Your task to perform on an android device: install app "Google Translate" Image 0: 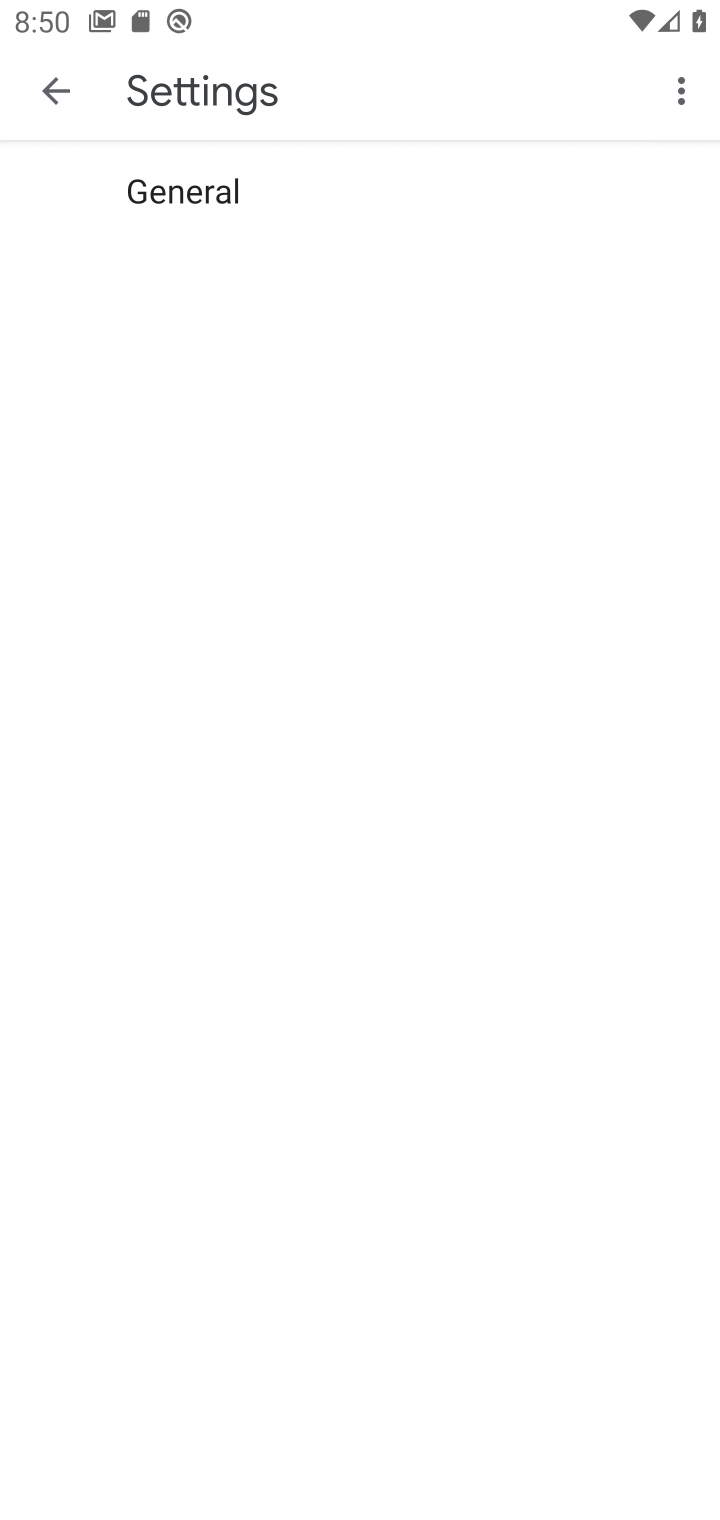
Step 0: press home button
Your task to perform on an android device: install app "Google Translate" Image 1: 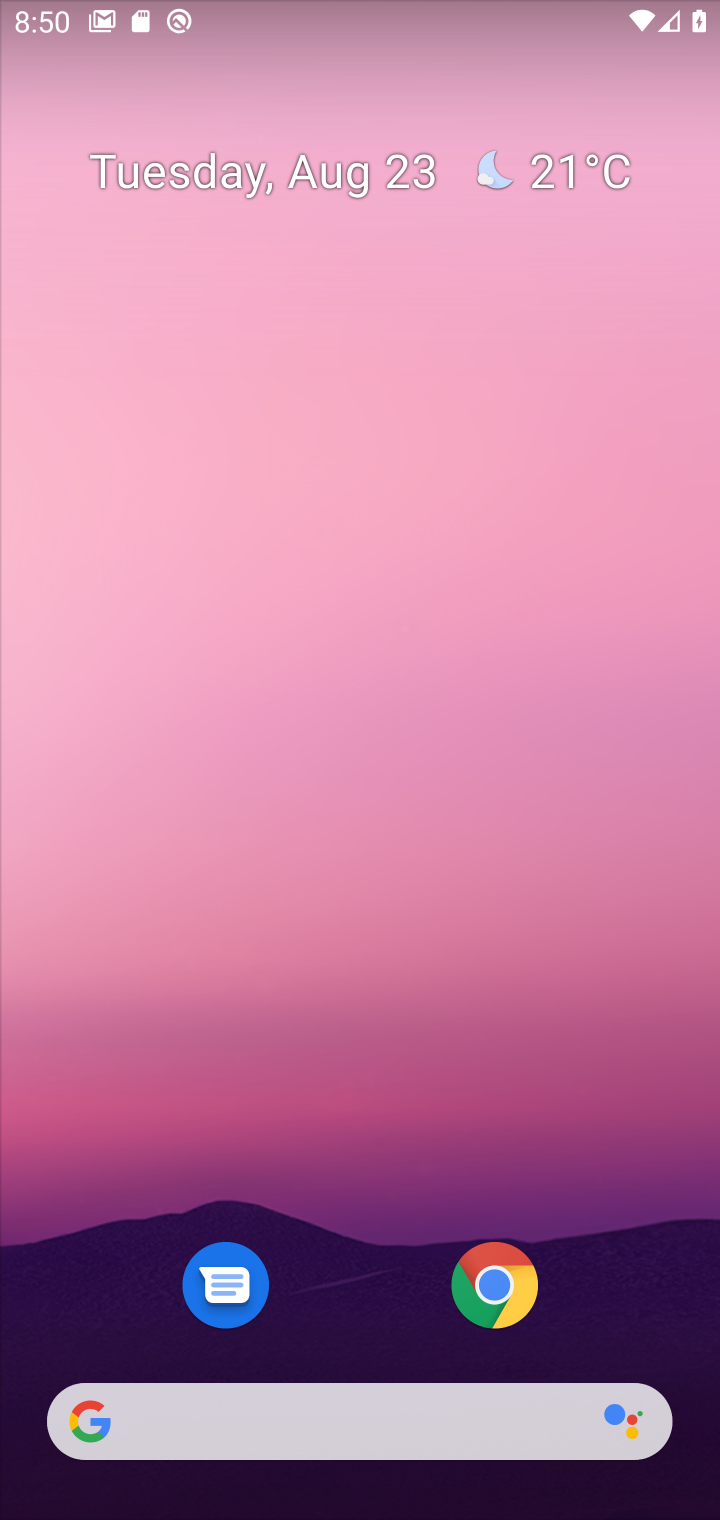
Step 1: drag from (674, 1322) to (632, 90)
Your task to perform on an android device: install app "Google Translate" Image 2: 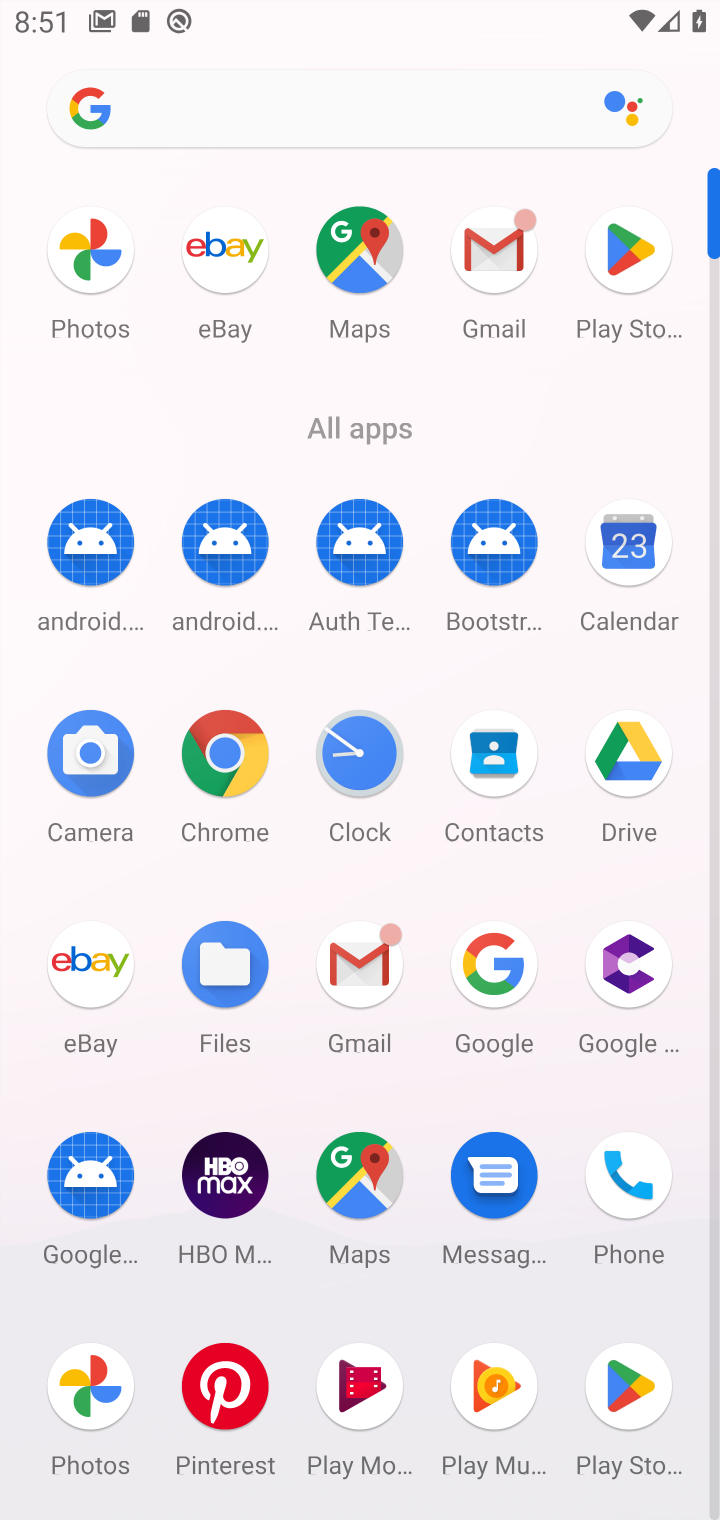
Step 2: click (633, 1386)
Your task to perform on an android device: install app "Google Translate" Image 3: 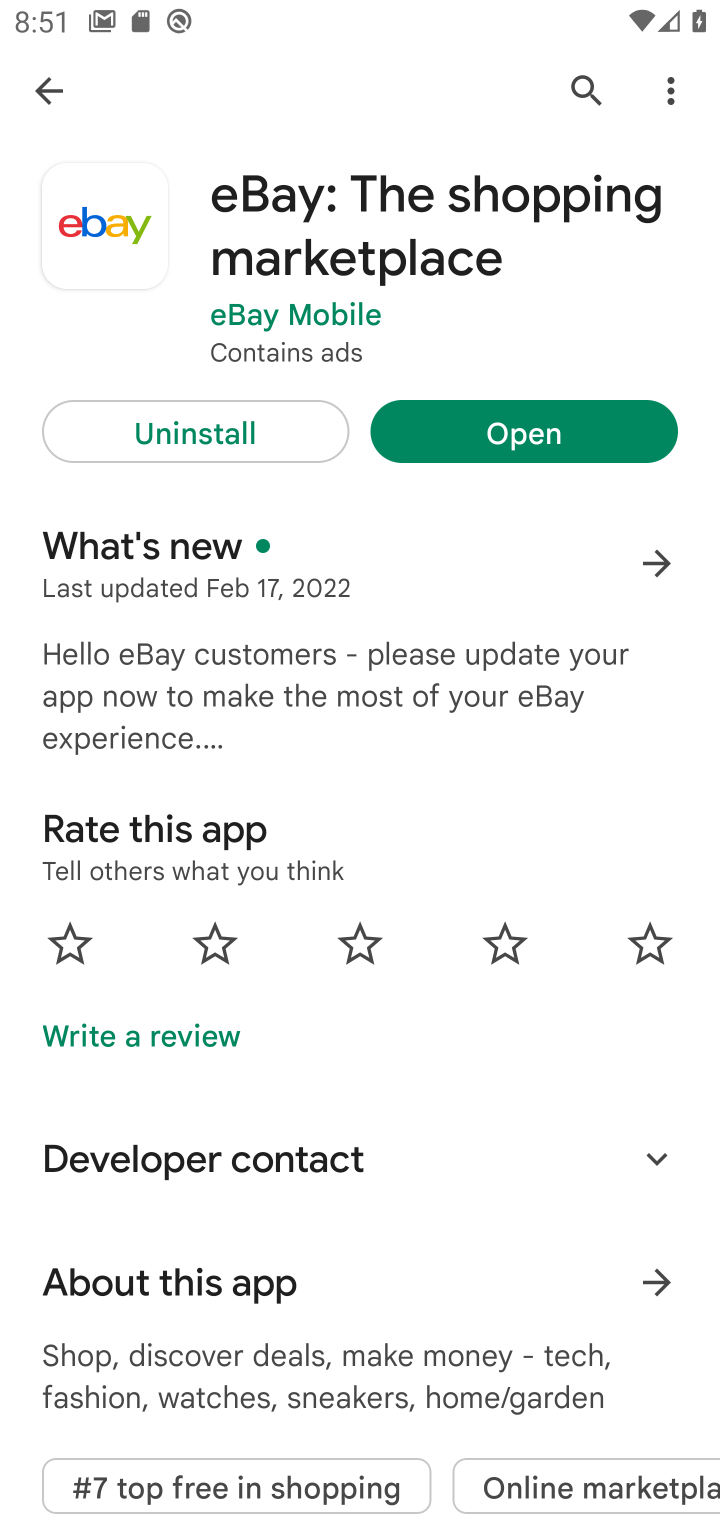
Step 3: click (581, 97)
Your task to perform on an android device: install app "Google Translate" Image 4: 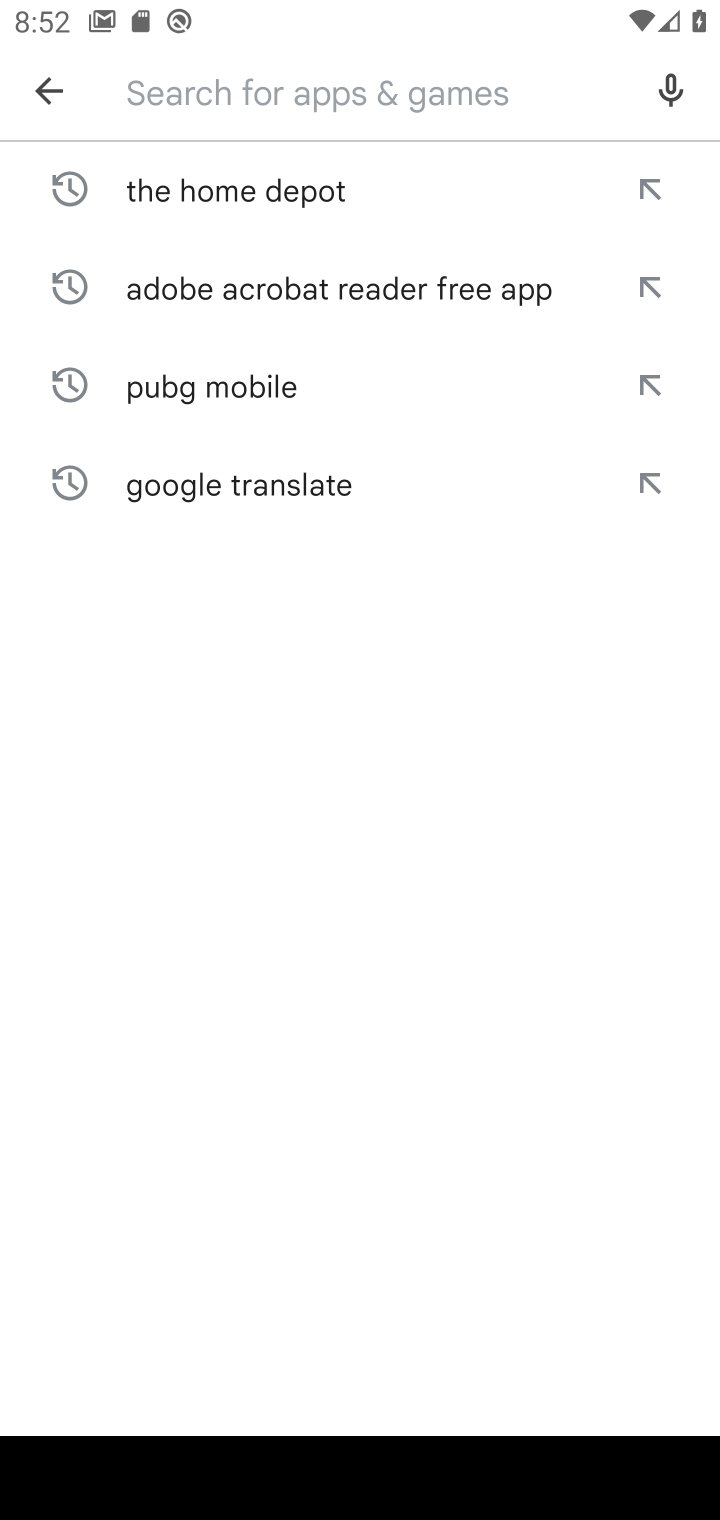
Step 4: type "Google Translate"
Your task to perform on an android device: install app "Google Translate" Image 5: 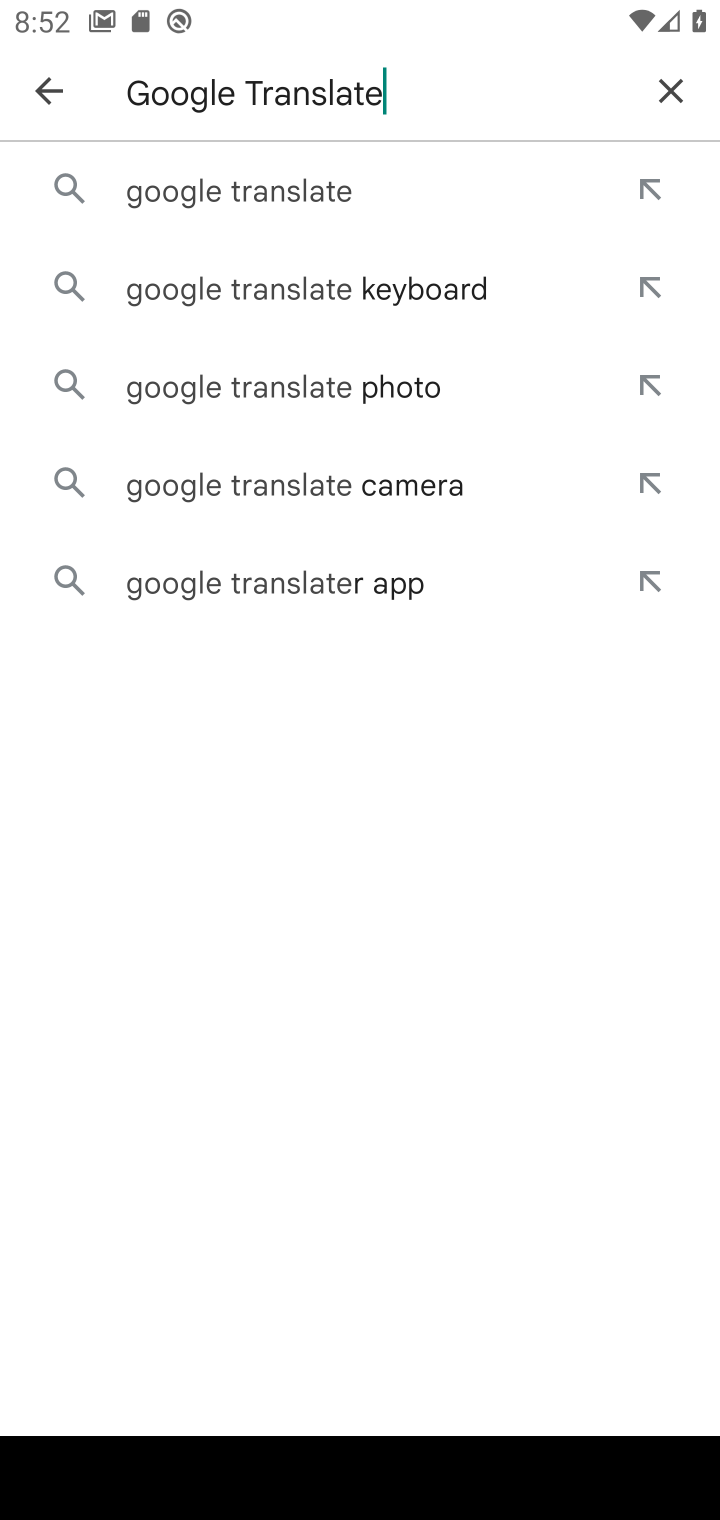
Step 5: click (192, 186)
Your task to perform on an android device: install app "Google Translate" Image 6: 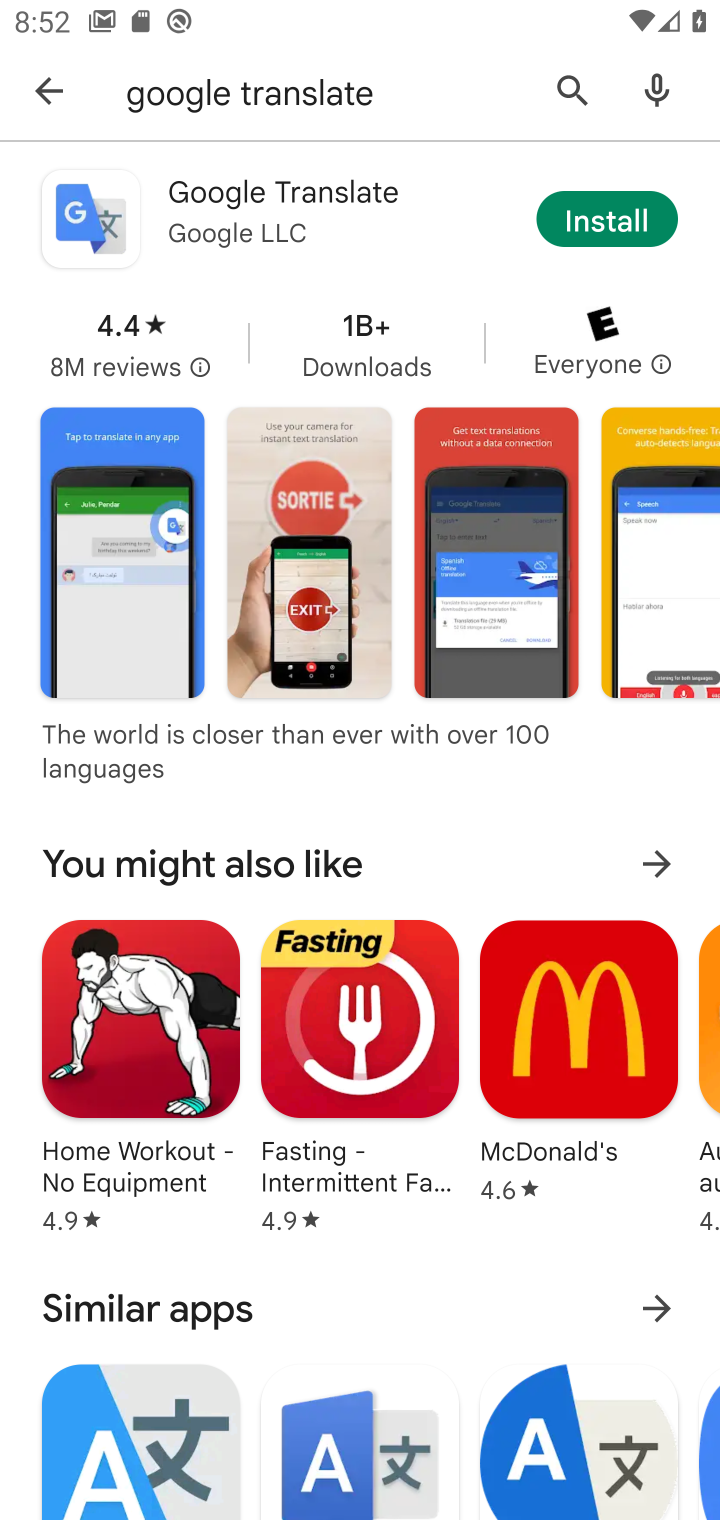
Step 6: click (616, 222)
Your task to perform on an android device: install app "Google Translate" Image 7: 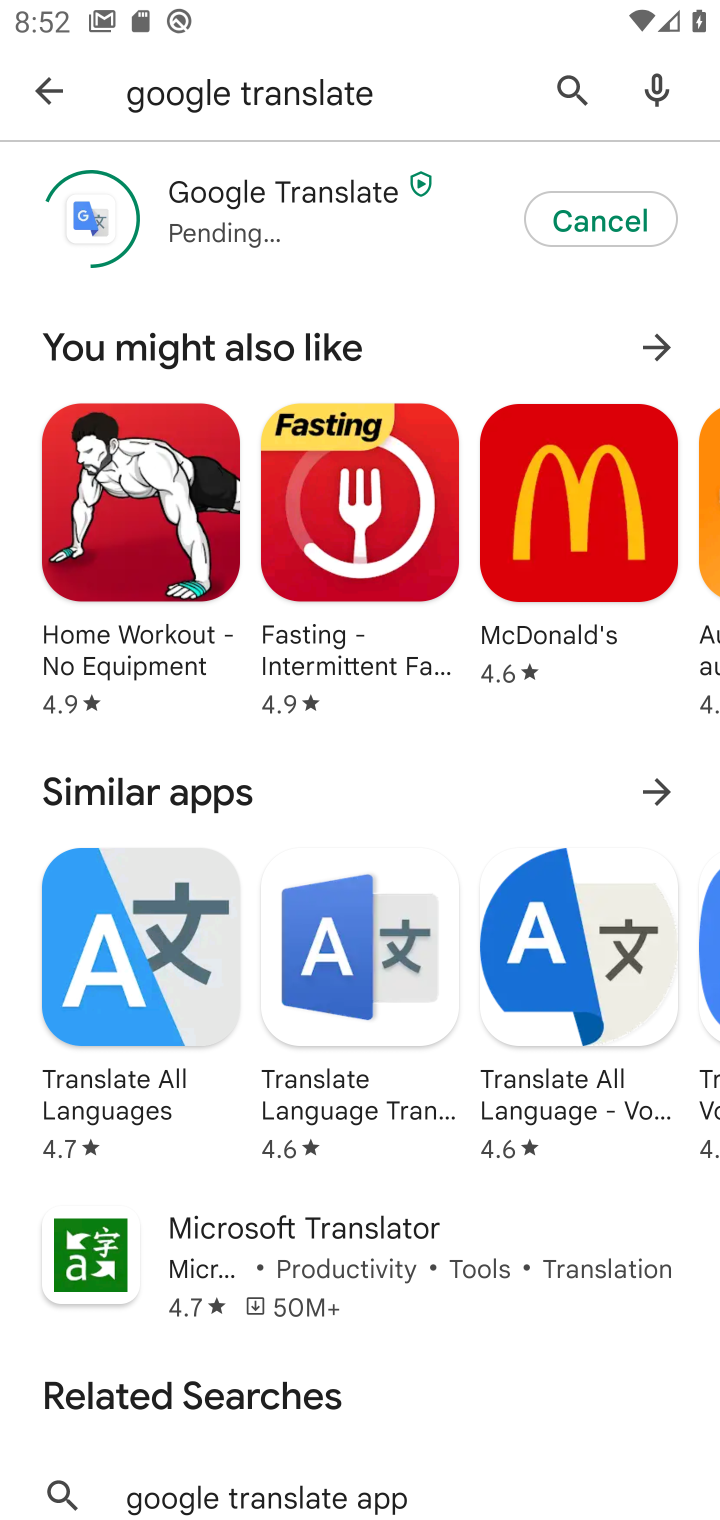
Step 7: click (209, 196)
Your task to perform on an android device: install app "Google Translate" Image 8: 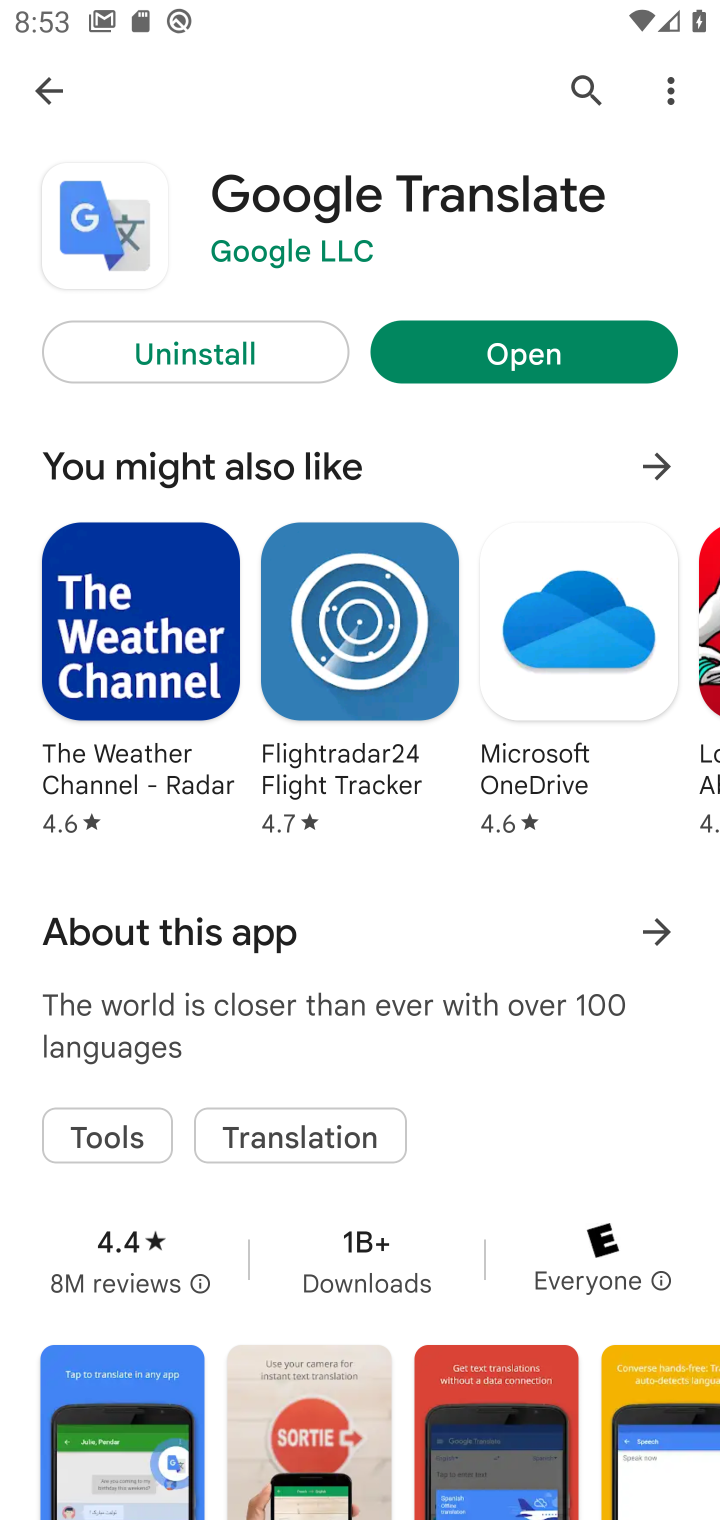
Step 8: task complete